Your task to perform on an android device: check out phone information Image 0: 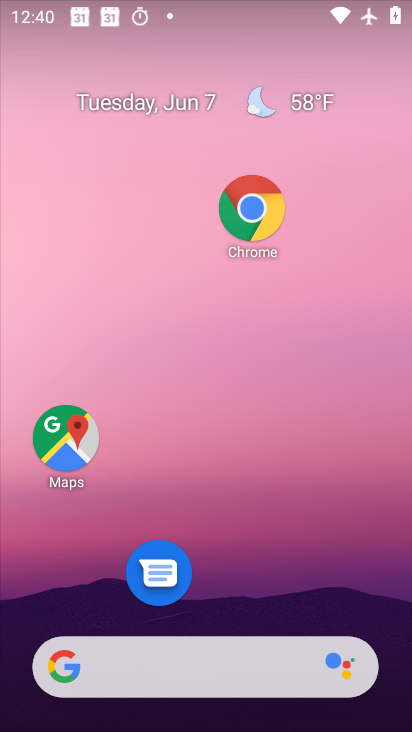
Step 0: drag from (234, 592) to (209, 206)
Your task to perform on an android device: check out phone information Image 1: 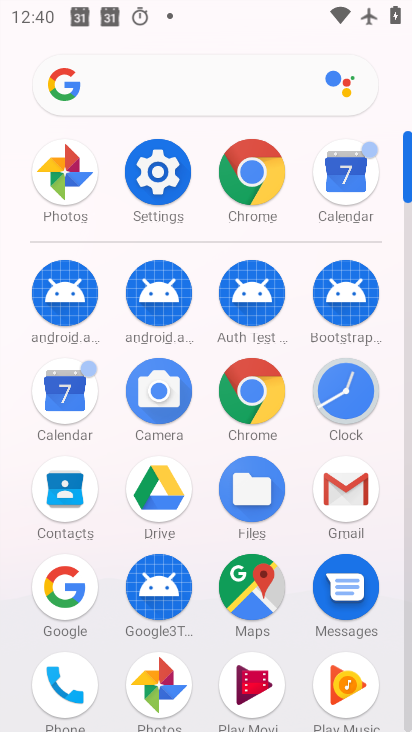
Step 1: click (164, 180)
Your task to perform on an android device: check out phone information Image 2: 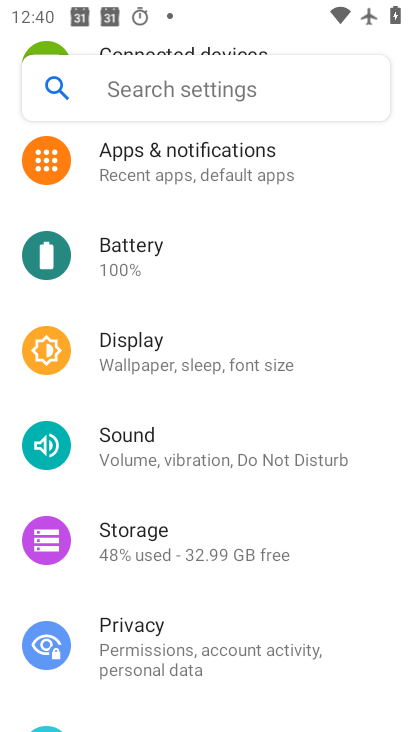
Step 2: drag from (197, 595) to (207, 259)
Your task to perform on an android device: check out phone information Image 3: 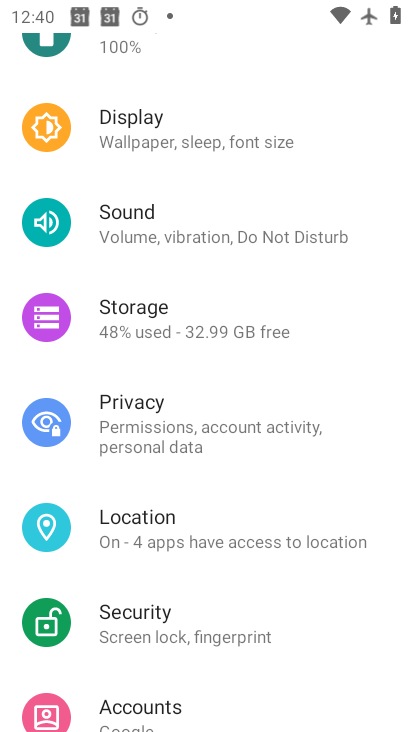
Step 3: drag from (218, 637) to (228, 267)
Your task to perform on an android device: check out phone information Image 4: 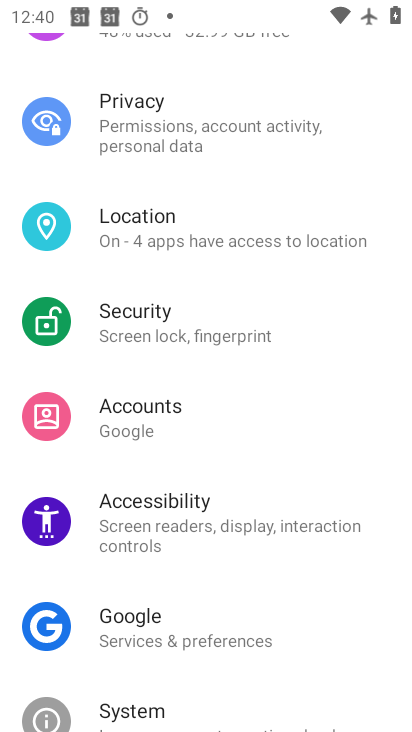
Step 4: drag from (261, 571) to (244, 317)
Your task to perform on an android device: check out phone information Image 5: 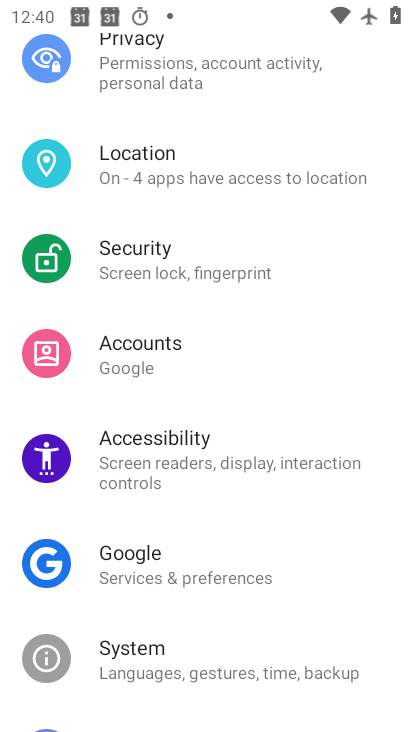
Step 5: drag from (244, 596) to (250, 379)
Your task to perform on an android device: check out phone information Image 6: 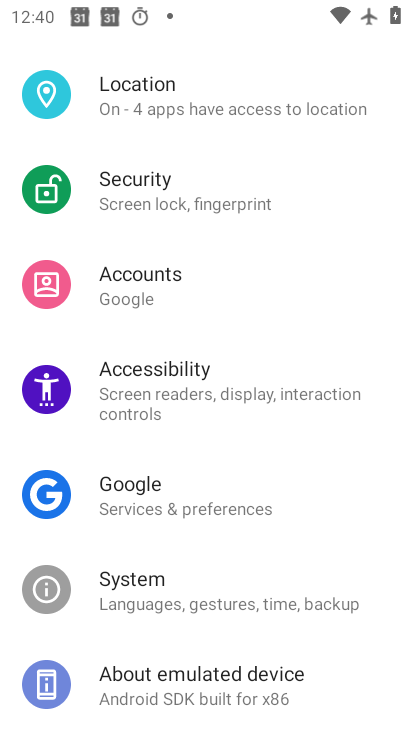
Step 6: drag from (250, 588) to (253, 355)
Your task to perform on an android device: check out phone information Image 7: 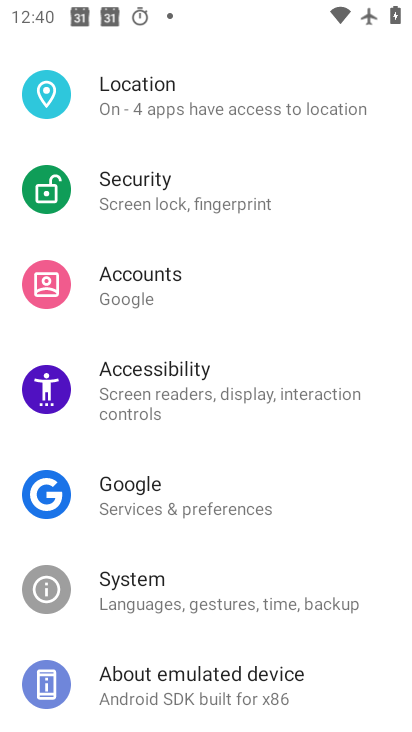
Step 7: click (202, 673)
Your task to perform on an android device: check out phone information Image 8: 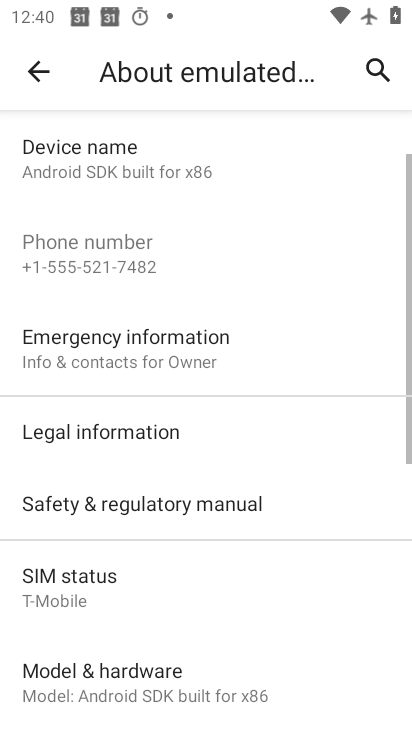
Step 8: task complete